Your task to perform on an android device: toggle javascript in the chrome app Image 0: 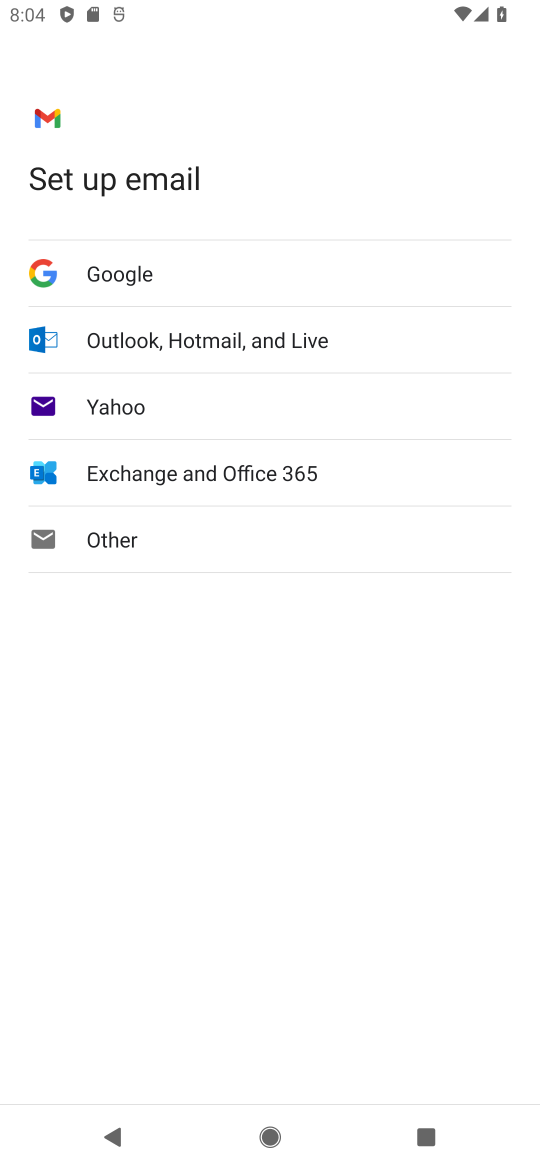
Step 0: press back button
Your task to perform on an android device: toggle javascript in the chrome app Image 1: 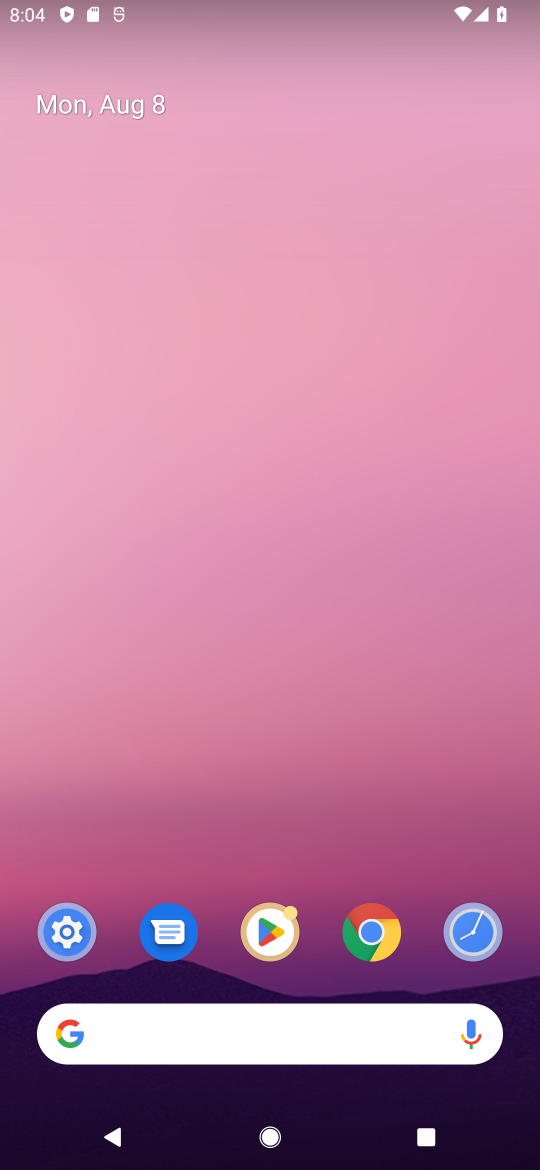
Step 1: click (366, 927)
Your task to perform on an android device: toggle javascript in the chrome app Image 2: 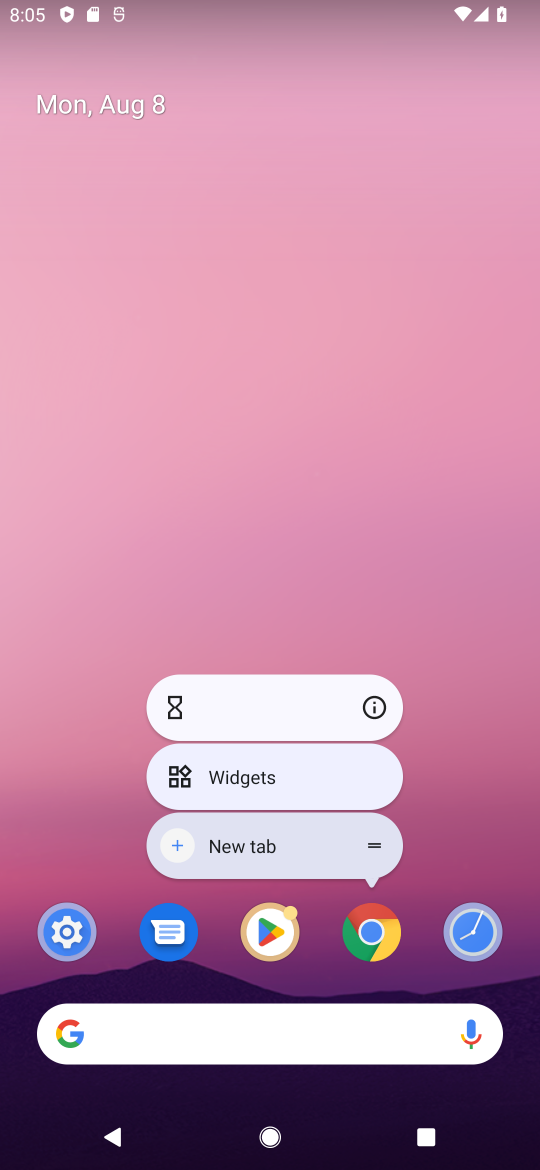
Step 2: click (377, 930)
Your task to perform on an android device: toggle javascript in the chrome app Image 3: 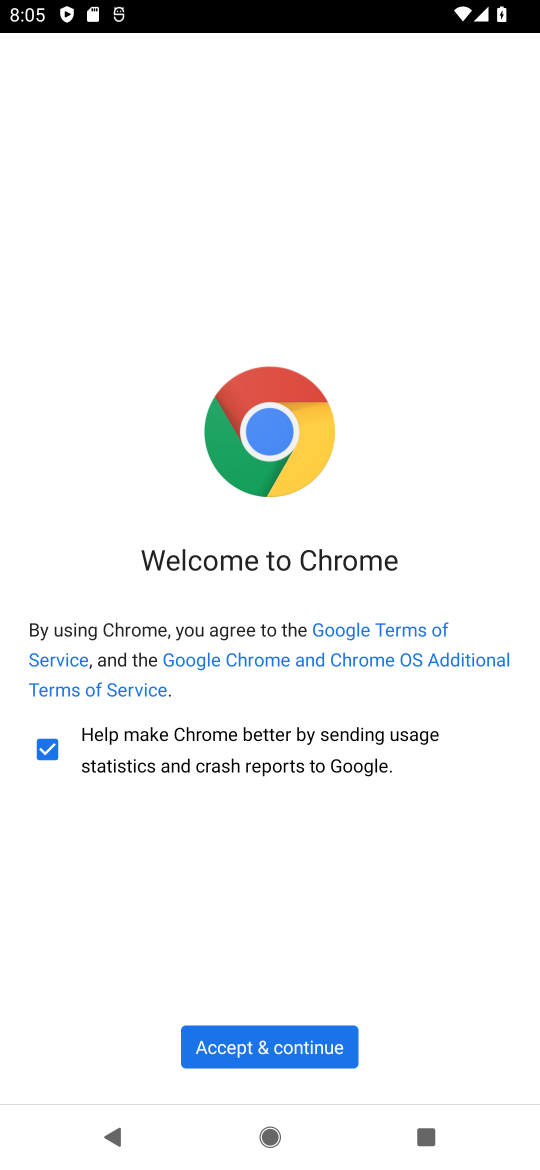
Step 3: click (345, 1046)
Your task to perform on an android device: toggle javascript in the chrome app Image 4: 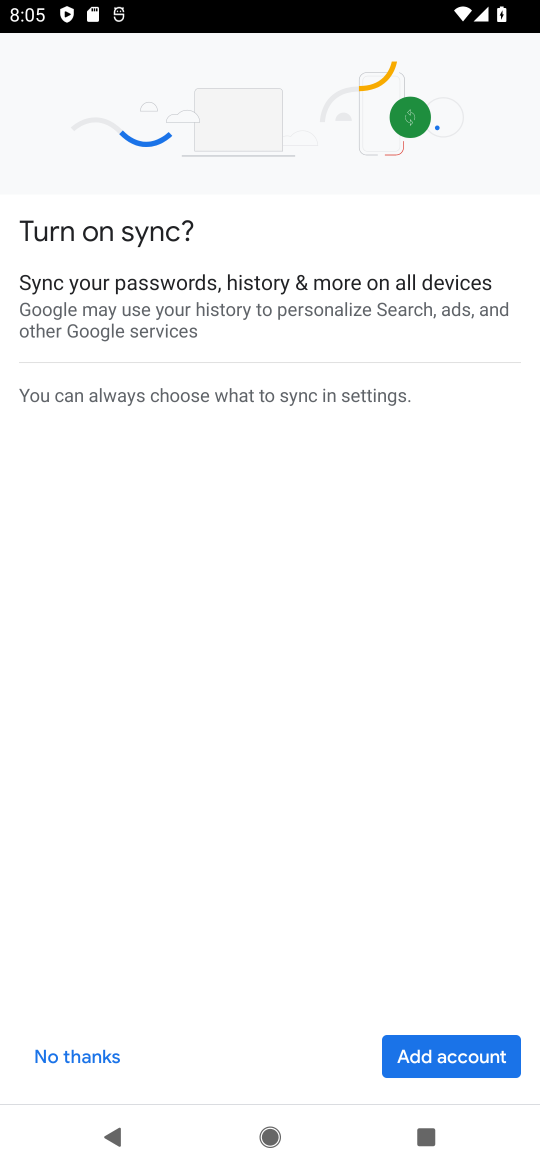
Step 4: click (102, 1063)
Your task to perform on an android device: toggle javascript in the chrome app Image 5: 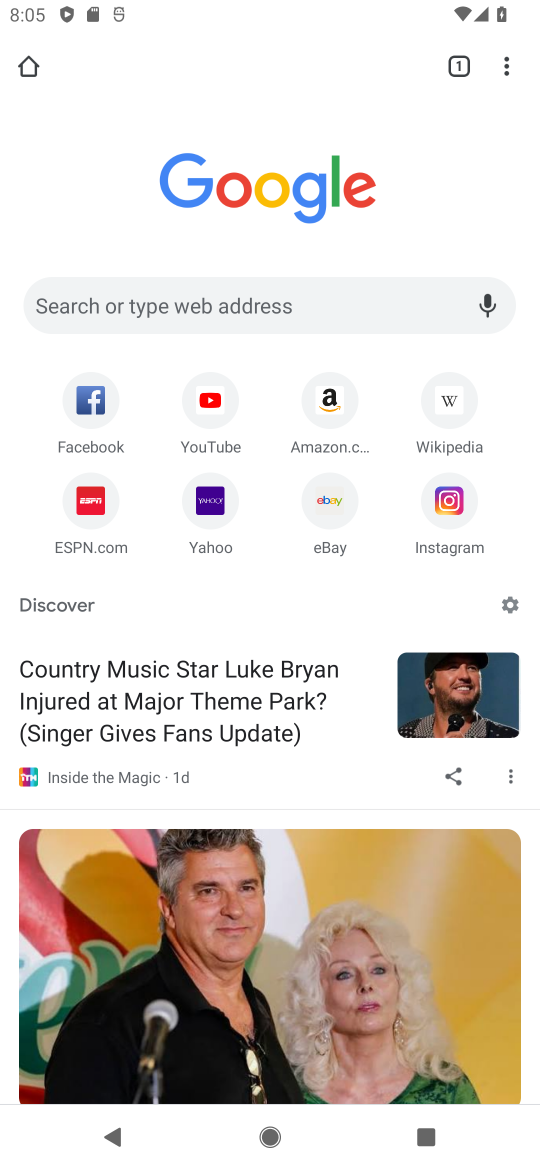
Step 5: drag from (505, 66) to (321, 554)
Your task to perform on an android device: toggle javascript in the chrome app Image 6: 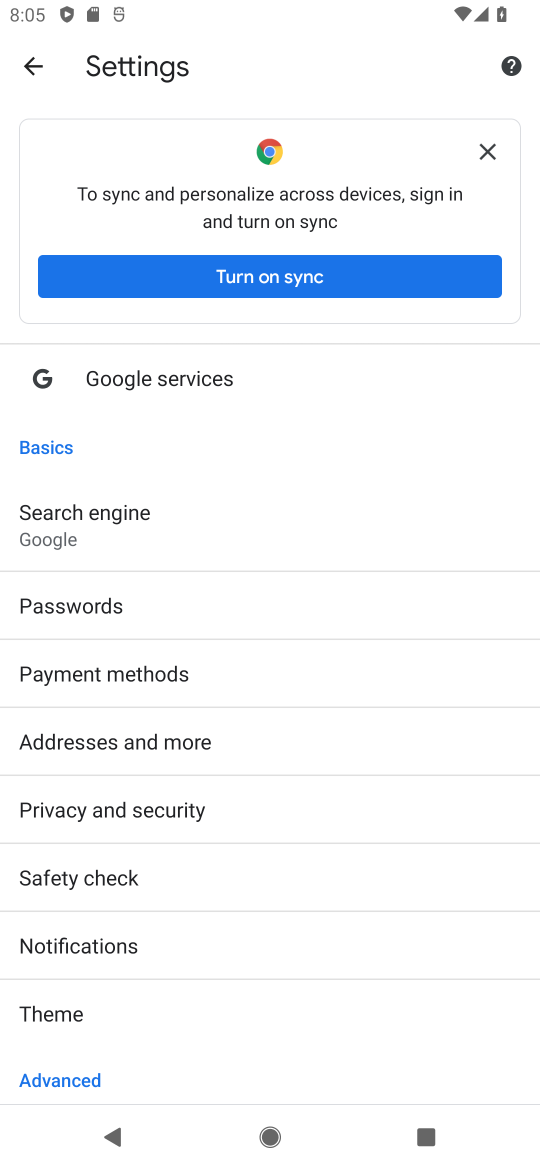
Step 6: drag from (242, 899) to (326, 343)
Your task to perform on an android device: toggle javascript in the chrome app Image 7: 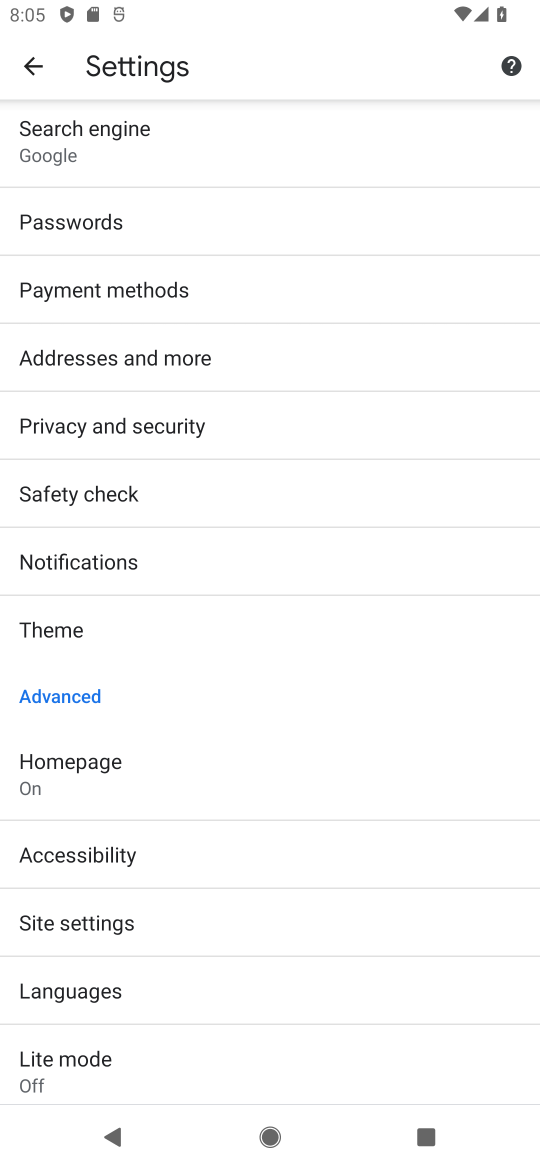
Step 7: click (135, 934)
Your task to perform on an android device: toggle javascript in the chrome app Image 8: 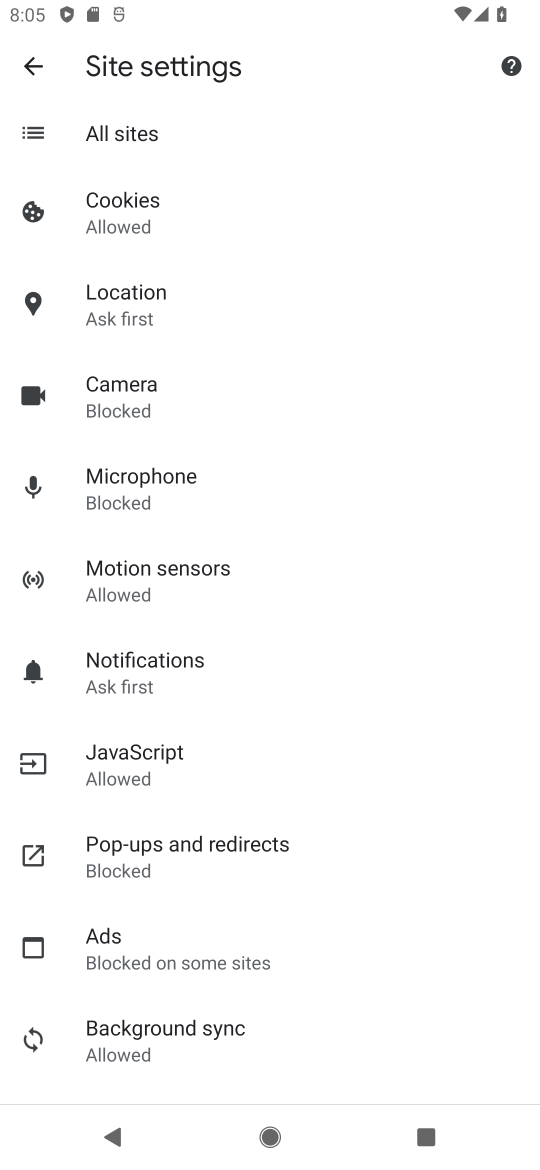
Step 8: click (163, 767)
Your task to perform on an android device: toggle javascript in the chrome app Image 9: 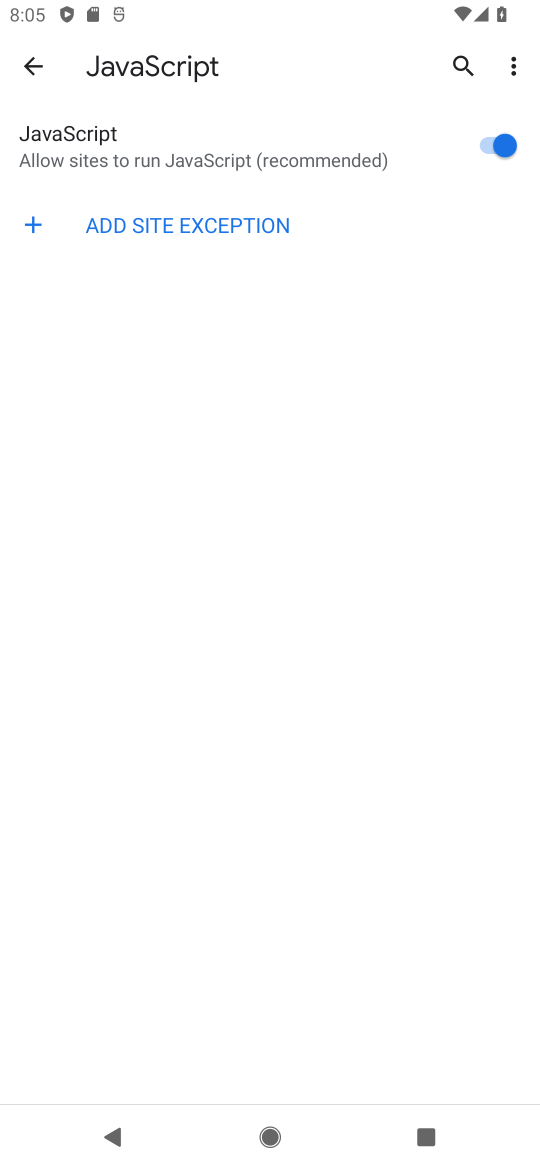
Step 9: click (505, 145)
Your task to perform on an android device: toggle javascript in the chrome app Image 10: 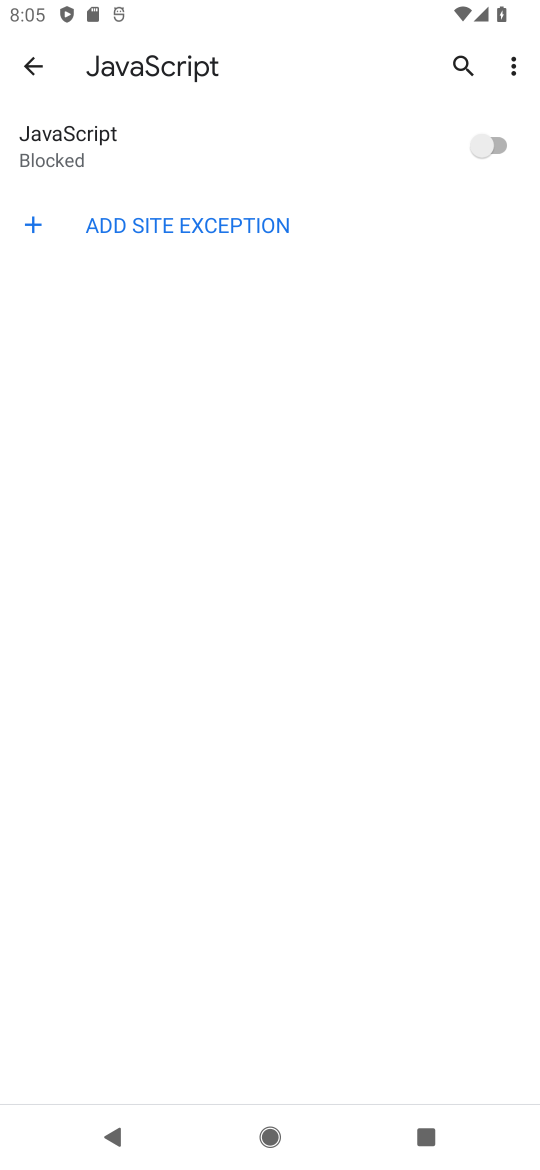
Step 10: task complete